Your task to perform on an android device: Open the stopwatch Image 0: 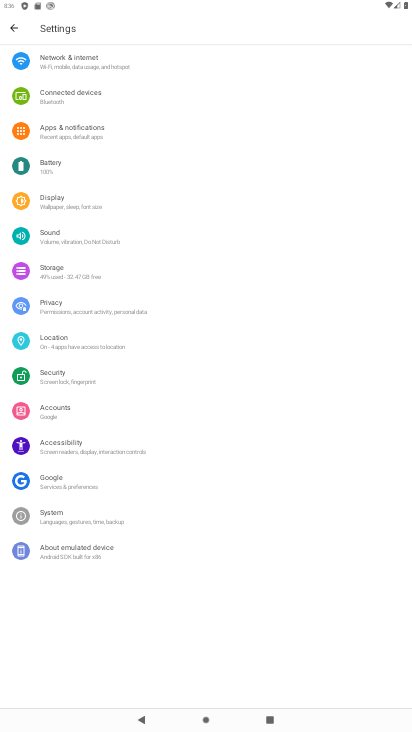
Step 0: press home button
Your task to perform on an android device: Open the stopwatch Image 1: 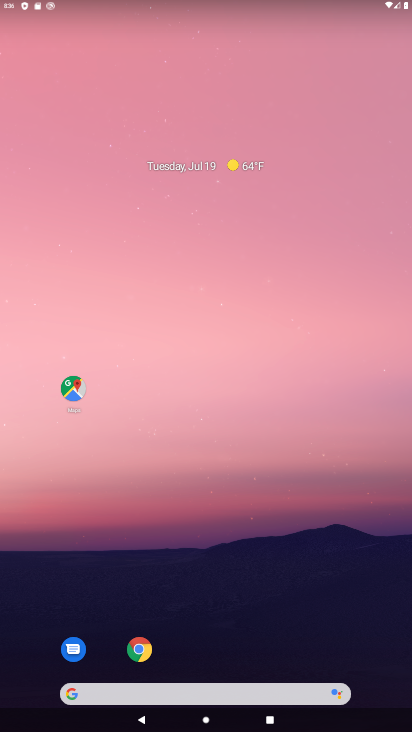
Step 1: drag from (186, 655) to (201, 175)
Your task to perform on an android device: Open the stopwatch Image 2: 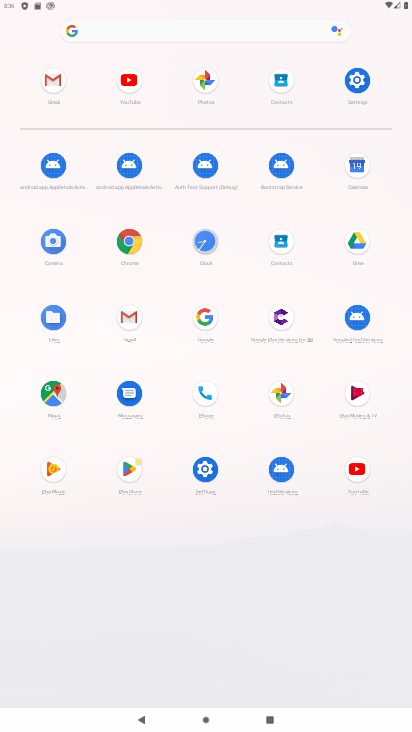
Step 2: click (189, 249)
Your task to perform on an android device: Open the stopwatch Image 3: 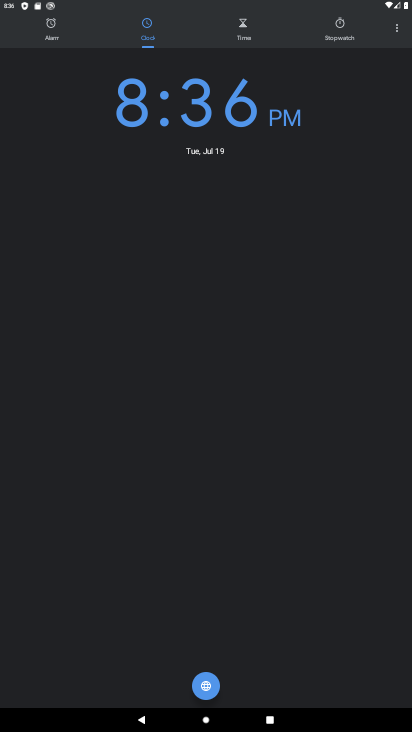
Step 3: click (348, 33)
Your task to perform on an android device: Open the stopwatch Image 4: 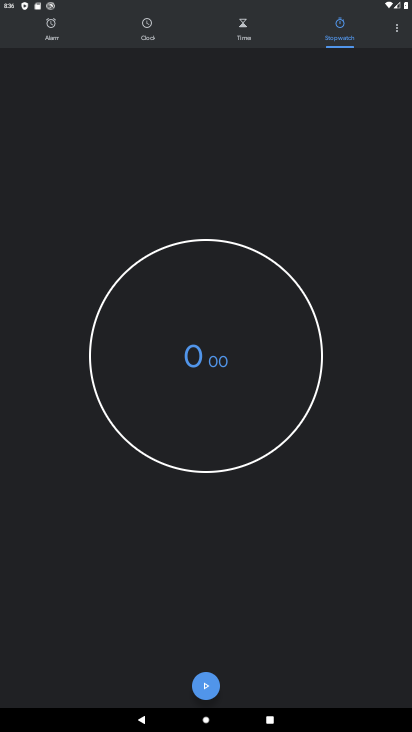
Step 4: task complete